Your task to perform on an android device: see tabs open on other devices in the chrome app Image 0: 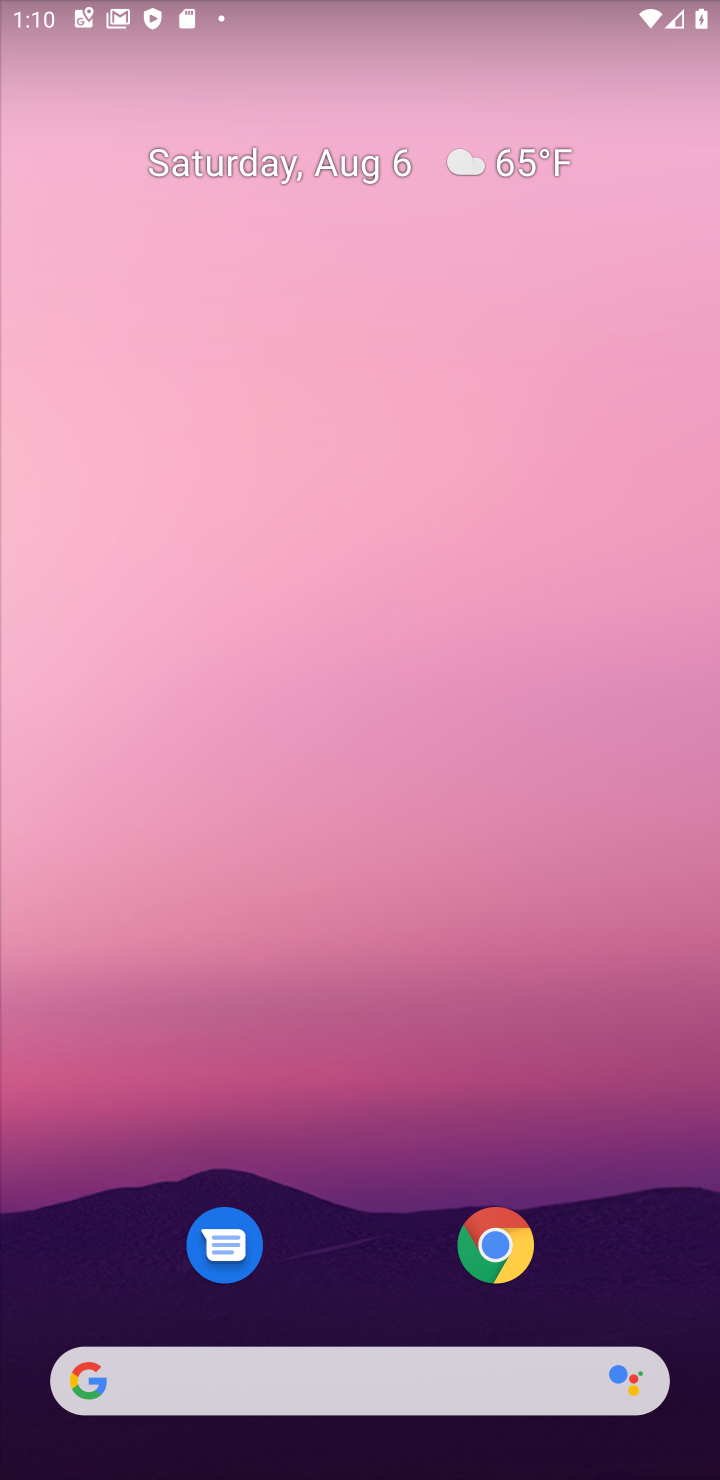
Step 0: click (522, 1253)
Your task to perform on an android device: see tabs open on other devices in the chrome app Image 1: 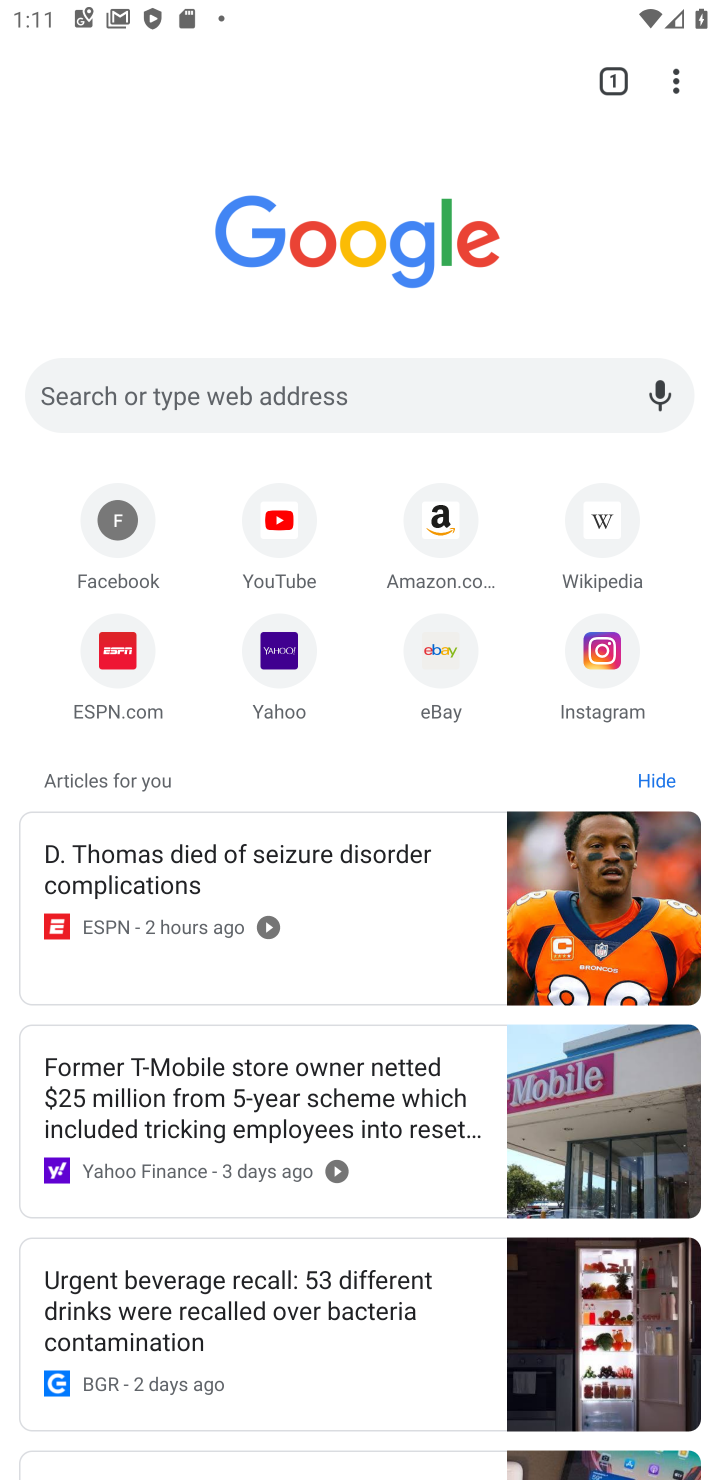
Step 1: task complete